Your task to perform on an android device: toggle priority inbox in the gmail app Image 0: 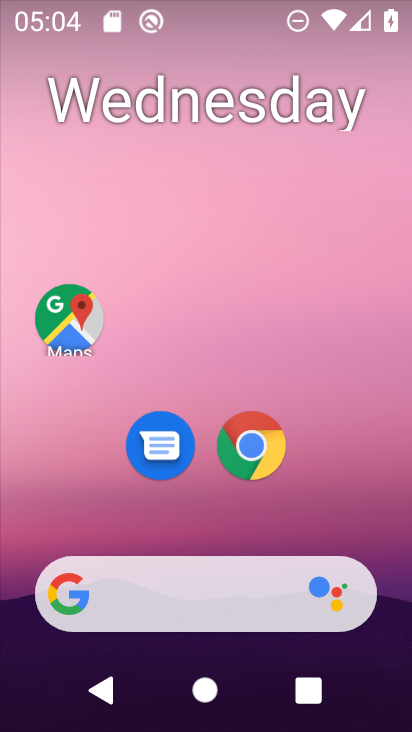
Step 0: drag from (213, 540) to (247, 68)
Your task to perform on an android device: toggle priority inbox in the gmail app Image 1: 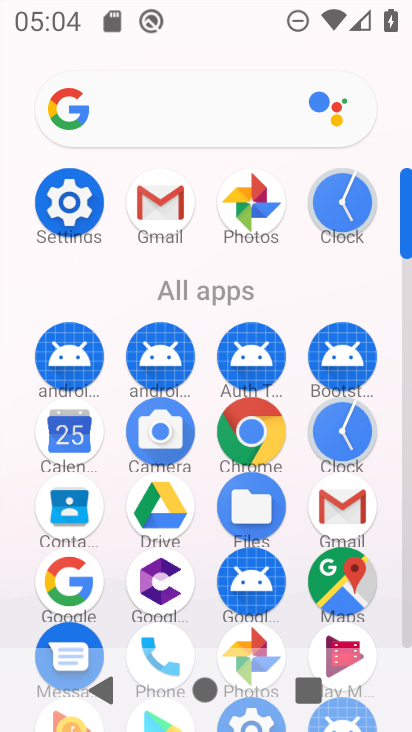
Step 1: click (168, 205)
Your task to perform on an android device: toggle priority inbox in the gmail app Image 2: 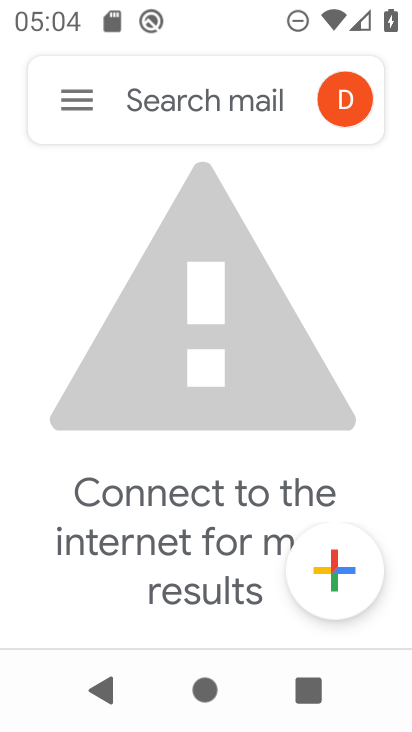
Step 2: click (64, 110)
Your task to perform on an android device: toggle priority inbox in the gmail app Image 3: 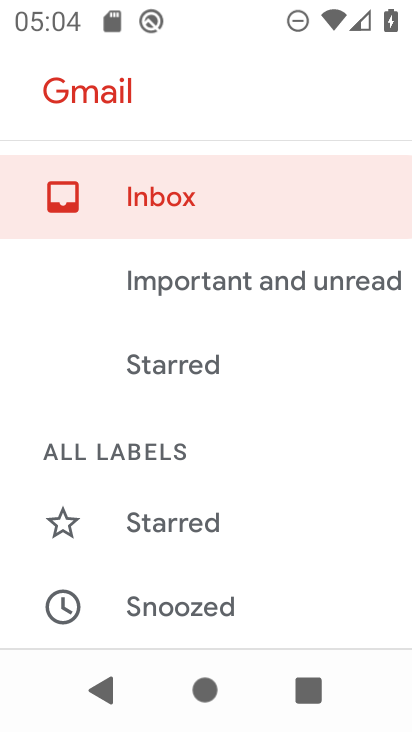
Step 3: drag from (226, 614) to (245, 145)
Your task to perform on an android device: toggle priority inbox in the gmail app Image 4: 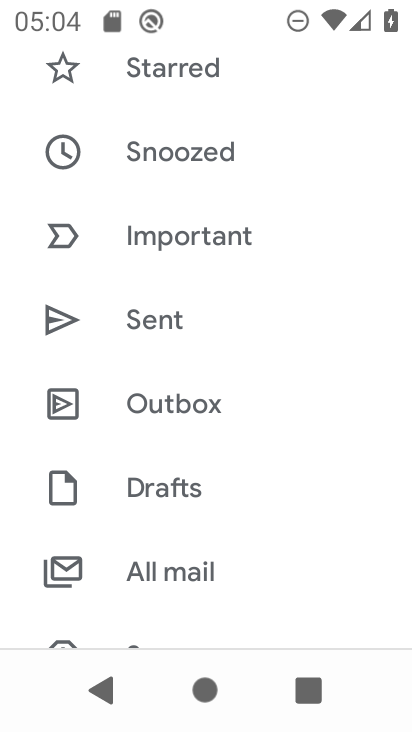
Step 4: drag from (201, 578) to (216, 216)
Your task to perform on an android device: toggle priority inbox in the gmail app Image 5: 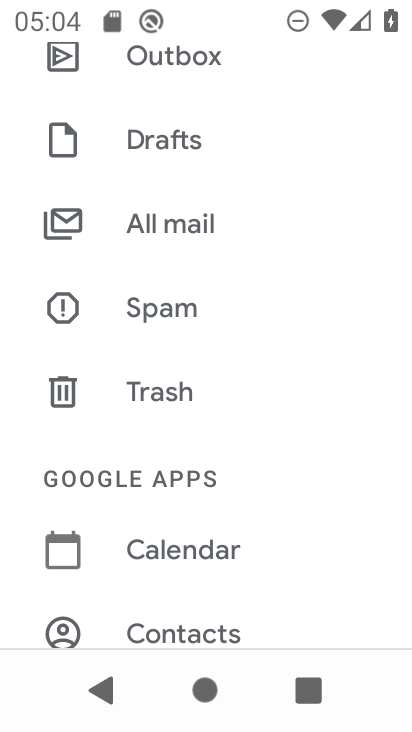
Step 5: drag from (95, 548) to (221, 38)
Your task to perform on an android device: toggle priority inbox in the gmail app Image 6: 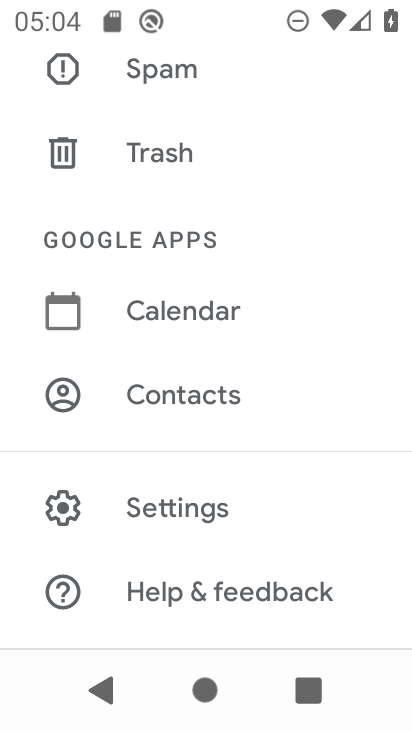
Step 6: click (223, 519)
Your task to perform on an android device: toggle priority inbox in the gmail app Image 7: 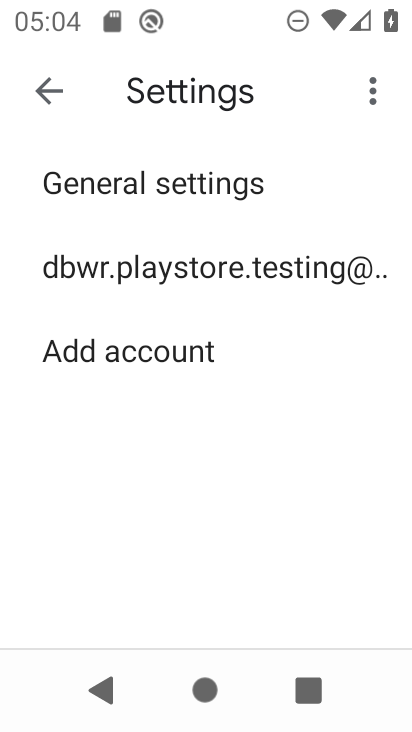
Step 7: click (192, 285)
Your task to perform on an android device: toggle priority inbox in the gmail app Image 8: 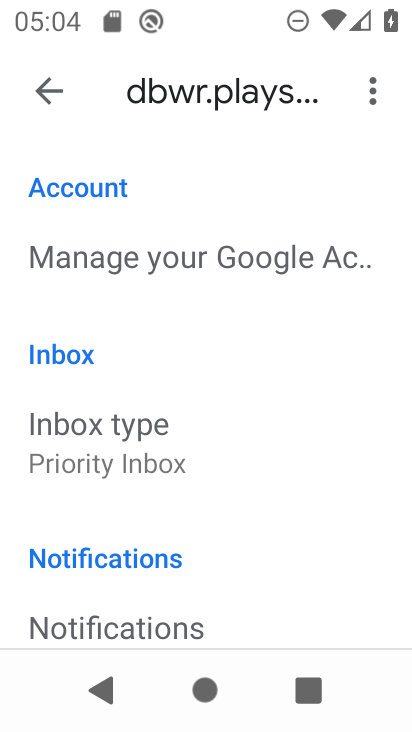
Step 8: click (178, 438)
Your task to perform on an android device: toggle priority inbox in the gmail app Image 9: 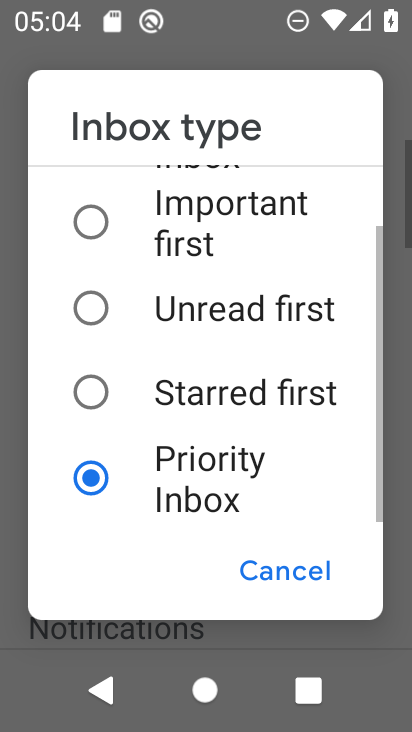
Step 9: click (178, 438)
Your task to perform on an android device: toggle priority inbox in the gmail app Image 10: 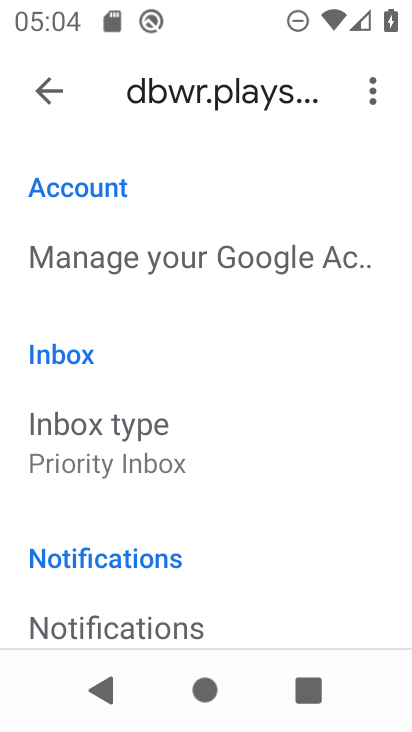
Step 10: task complete